Your task to perform on an android device: When is my next appointment? Image 0: 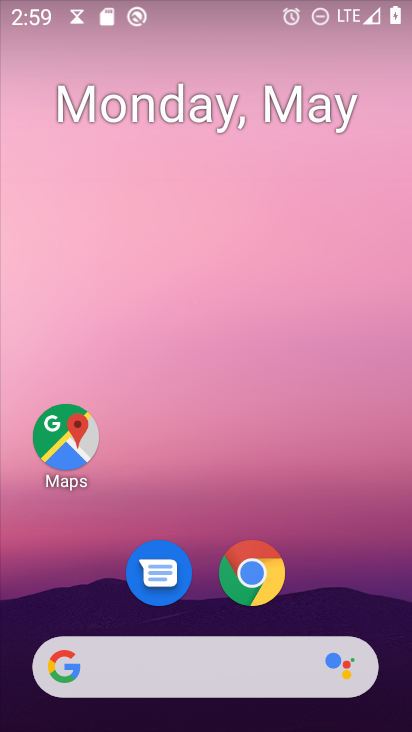
Step 0: drag from (361, 145) to (369, 83)
Your task to perform on an android device: When is my next appointment? Image 1: 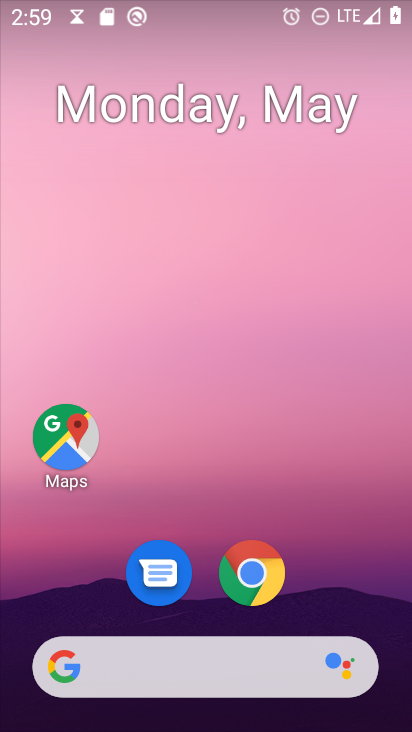
Step 1: drag from (281, 656) to (329, 190)
Your task to perform on an android device: When is my next appointment? Image 2: 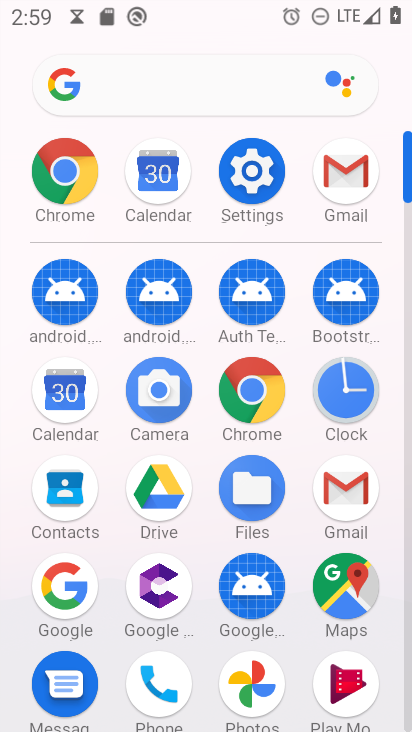
Step 2: click (257, 202)
Your task to perform on an android device: When is my next appointment? Image 3: 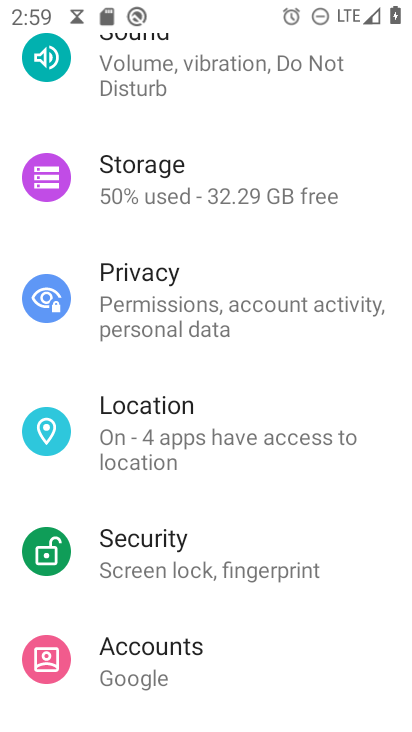
Step 3: press home button
Your task to perform on an android device: When is my next appointment? Image 4: 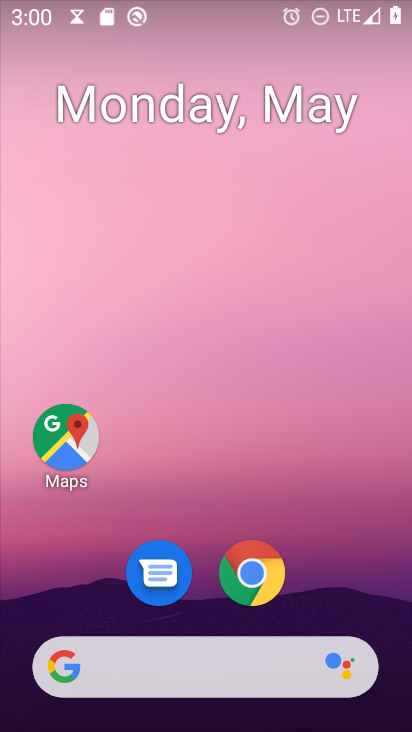
Step 4: drag from (202, 633) to (316, 76)
Your task to perform on an android device: When is my next appointment? Image 5: 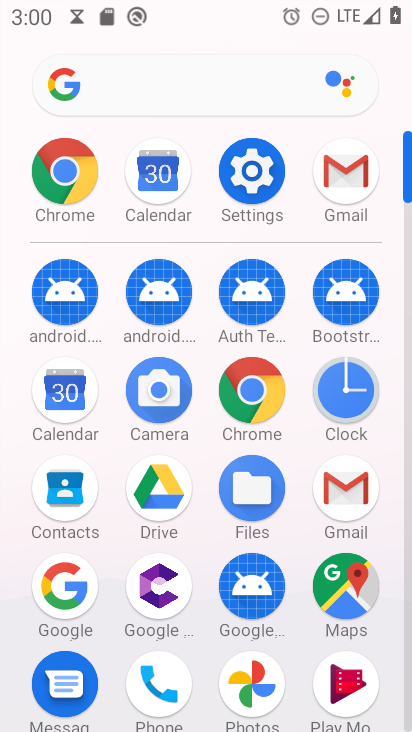
Step 5: click (92, 406)
Your task to perform on an android device: When is my next appointment? Image 6: 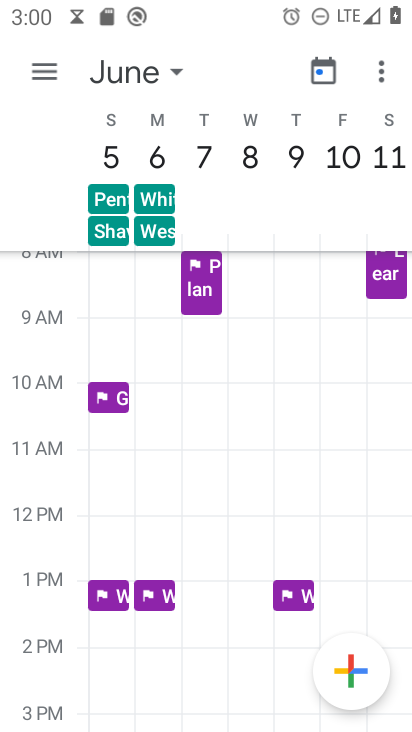
Step 6: click (171, 68)
Your task to perform on an android device: When is my next appointment? Image 7: 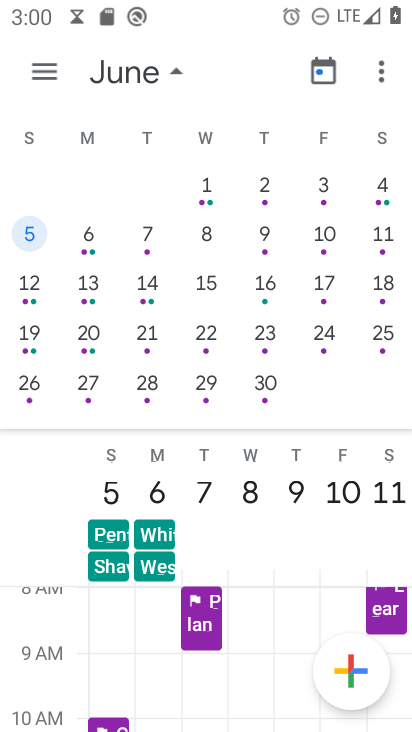
Step 7: drag from (77, 321) to (411, 310)
Your task to perform on an android device: When is my next appointment? Image 8: 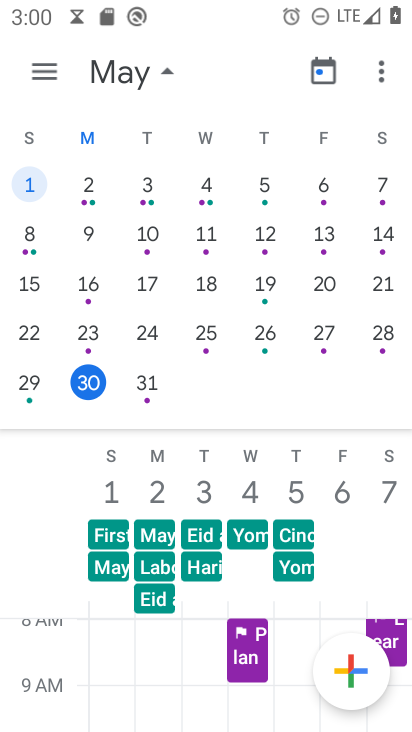
Step 8: click (137, 385)
Your task to perform on an android device: When is my next appointment? Image 9: 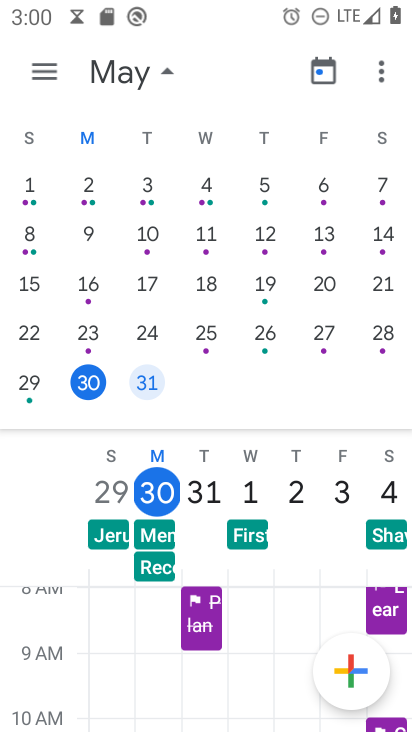
Step 9: task complete